Your task to perform on an android device: Go to Android settings Image 0: 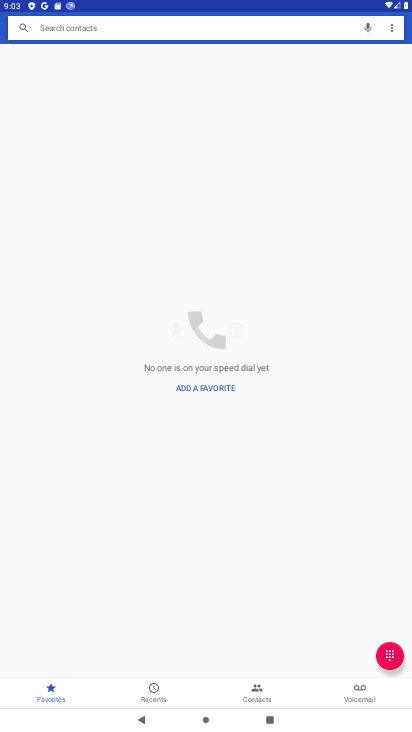
Step 0: click (194, 676)
Your task to perform on an android device: Go to Android settings Image 1: 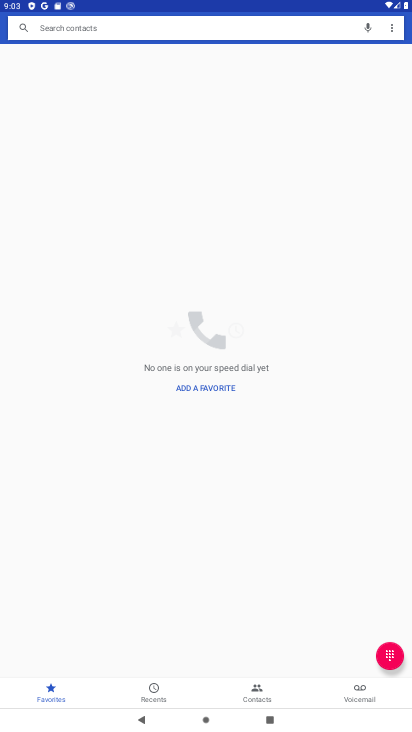
Step 1: press home button
Your task to perform on an android device: Go to Android settings Image 2: 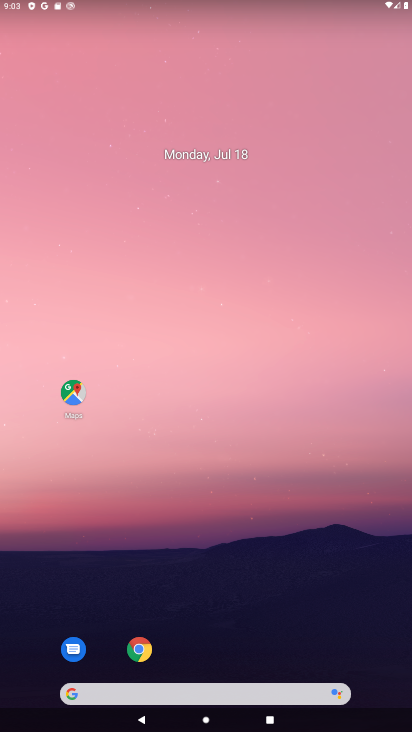
Step 2: drag from (230, 679) to (227, 20)
Your task to perform on an android device: Go to Android settings Image 3: 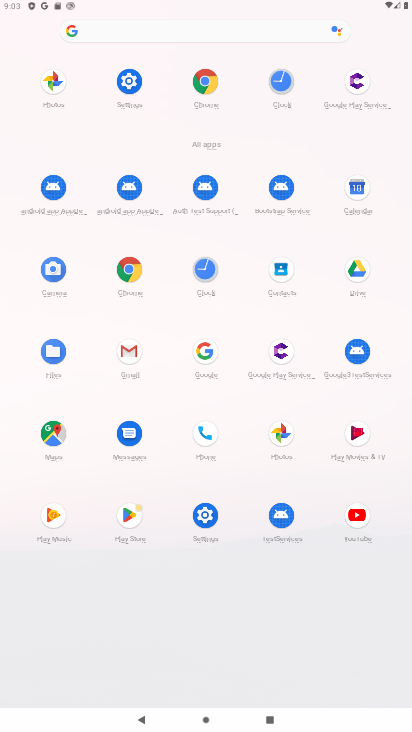
Step 3: click (125, 84)
Your task to perform on an android device: Go to Android settings Image 4: 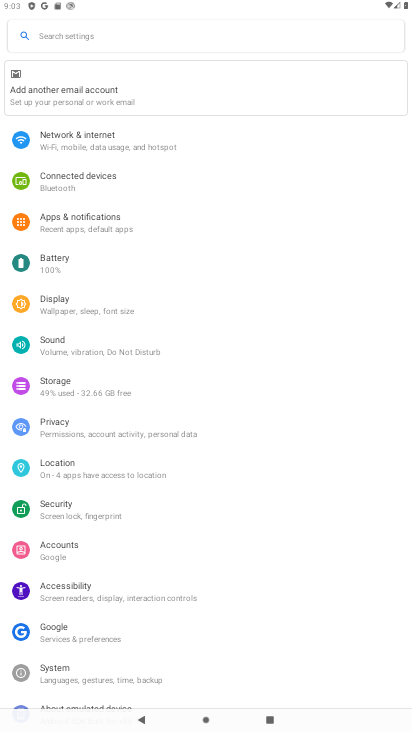
Step 4: drag from (166, 608) to (179, 39)
Your task to perform on an android device: Go to Android settings Image 5: 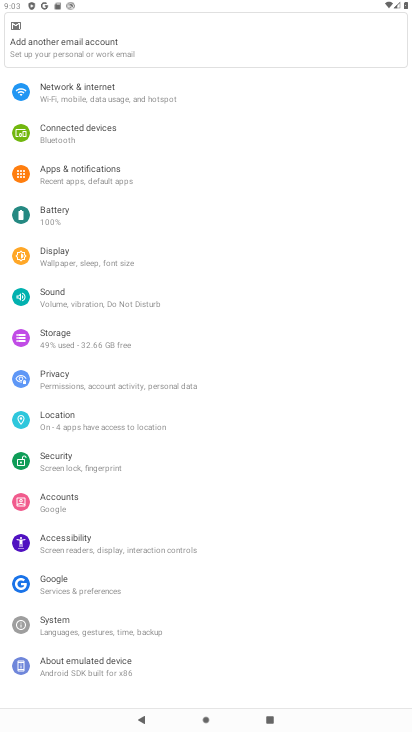
Step 5: click (50, 657)
Your task to perform on an android device: Go to Android settings Image 6: 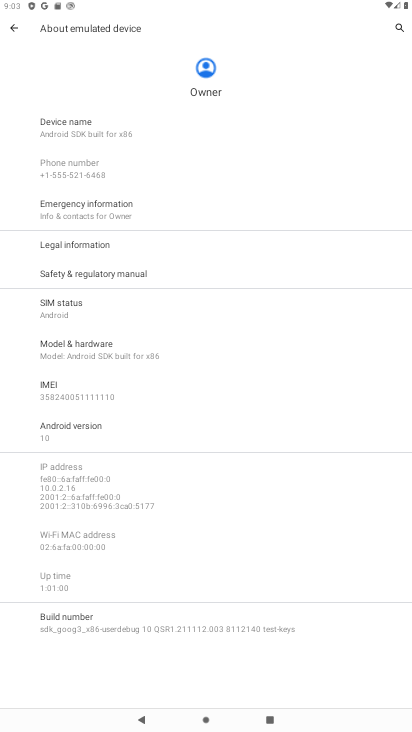
Step 6: click (88, 444)
Your task to perform on an android device: Go to Android settings Image 7: 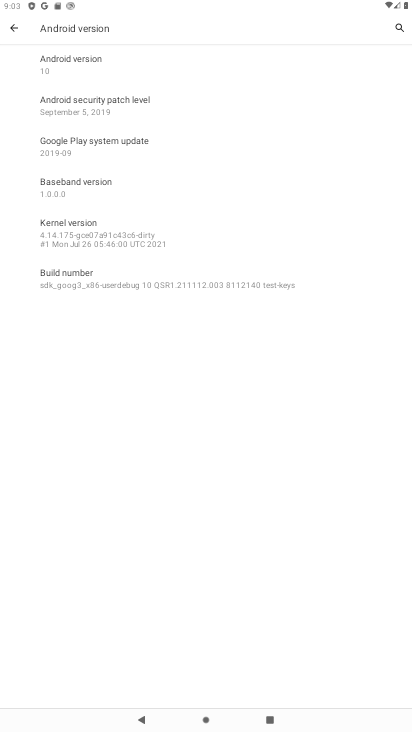
Step 7: task complete